Your task to perform on an android device: Search for flights from Tokyo to NYC Image 0: 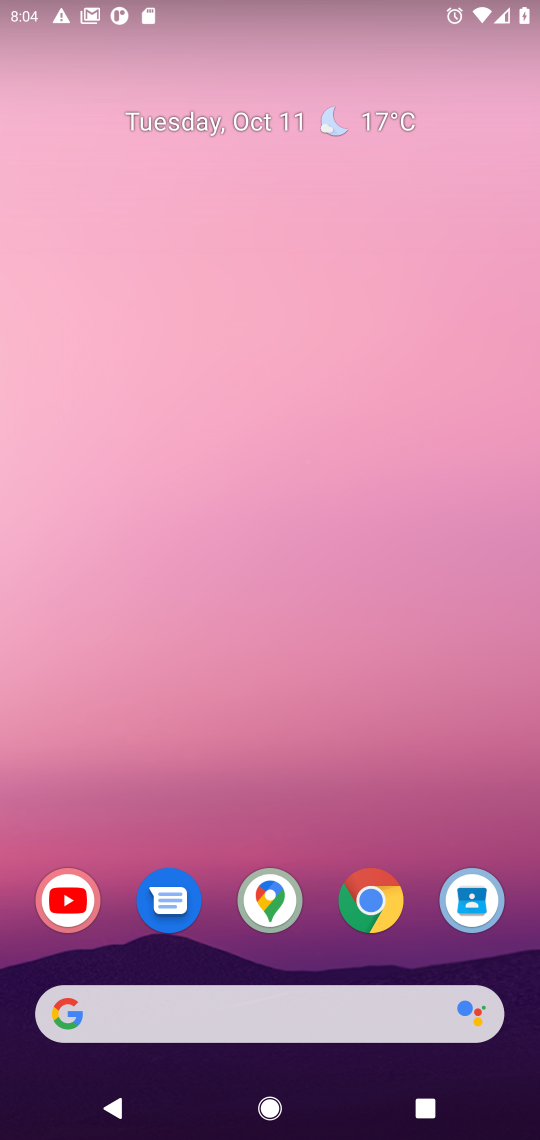
Step 0: click (374, 892)
Your task to perform on an android device: Search for flights from Tokyo to NYC Image 1: 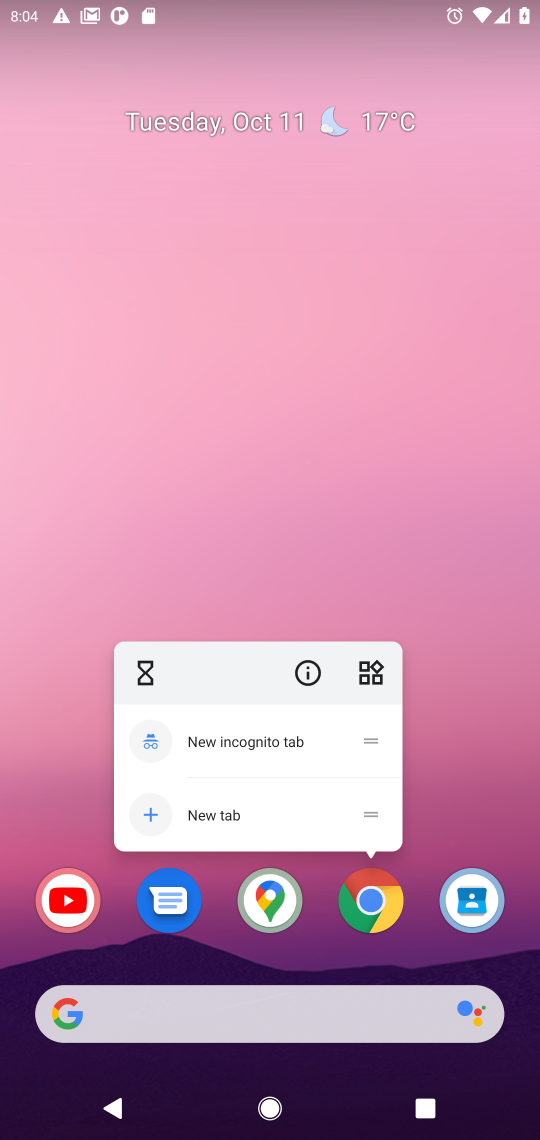
Step 1: click (368, 894)
Your task to perform on an android device: Search for flights from Tokyo to NYC Image 2: 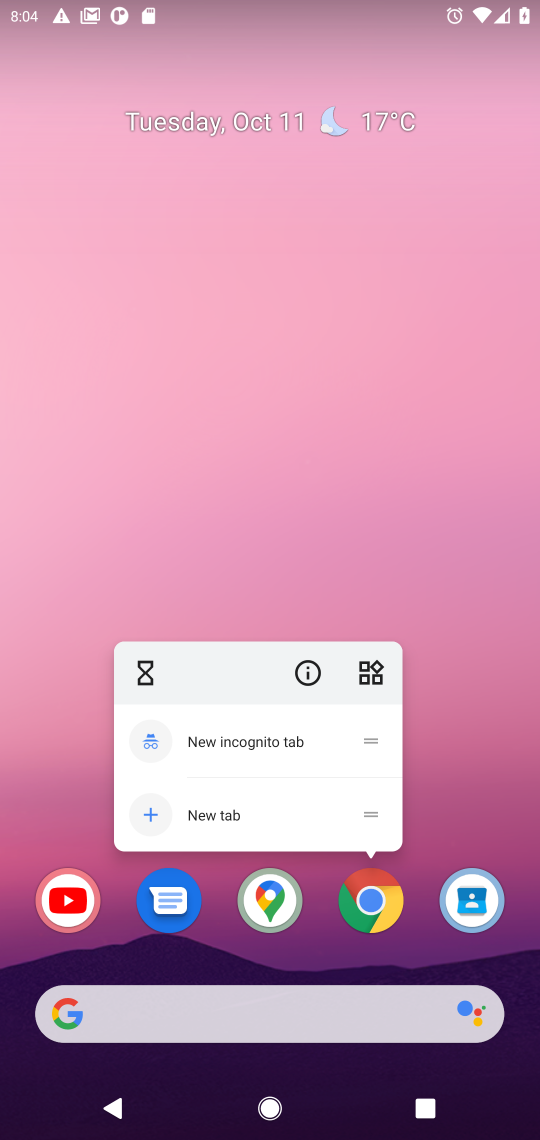
Step 2: click (367, 906)
Your task to perform on an android device: Search for flights from Tokyo to NYC Image 3: 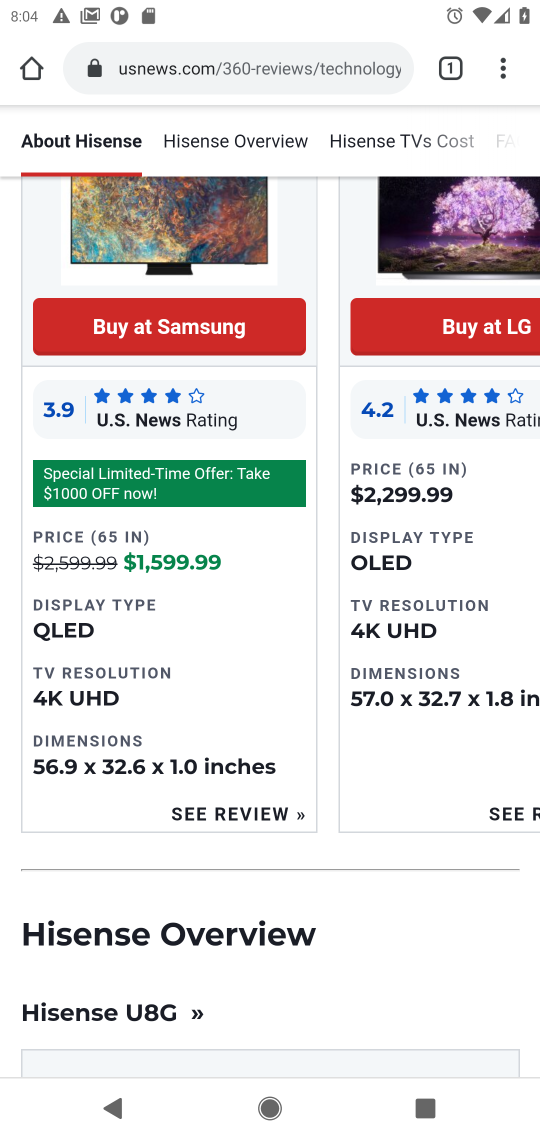
Step 3: click (265, 61)
Your task to perform on an android device: Search for flights from Tokyo to NYC Image 4: 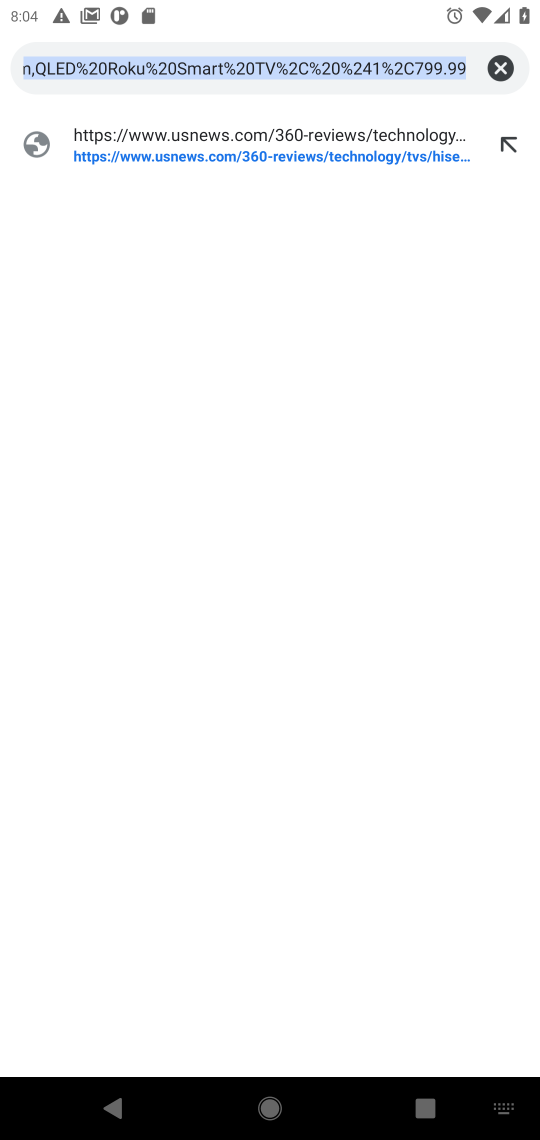
Step 4: click (497, 65)
Your task to perform on an android device: Search for flights from Tokyo to NYC Image 5: 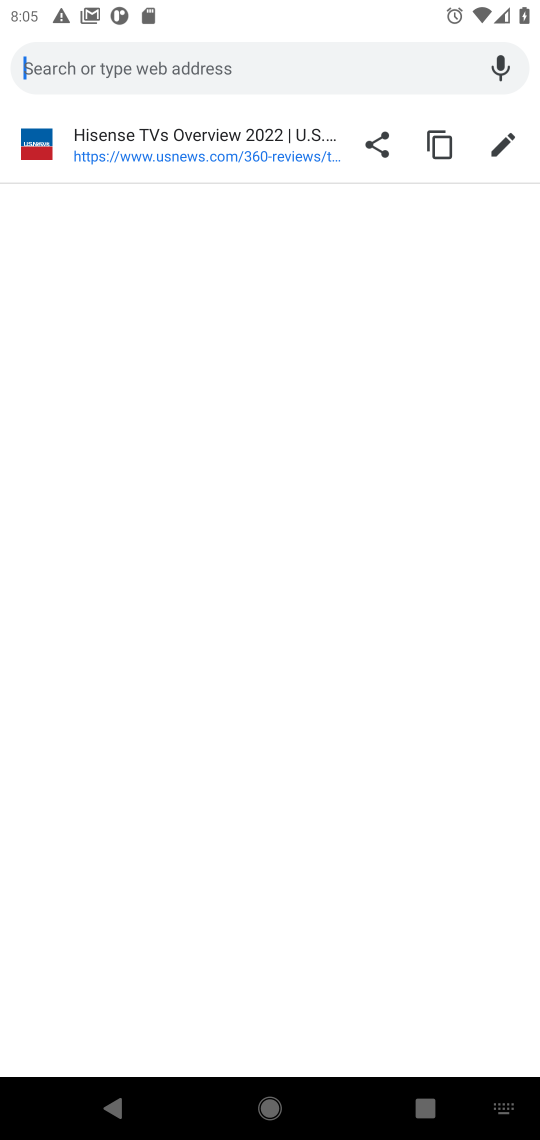
Step 5: type " flights from Tokyo to NYC"
Your task to perform on an android device: Search for flights from Tokyo to NYC Image 6: 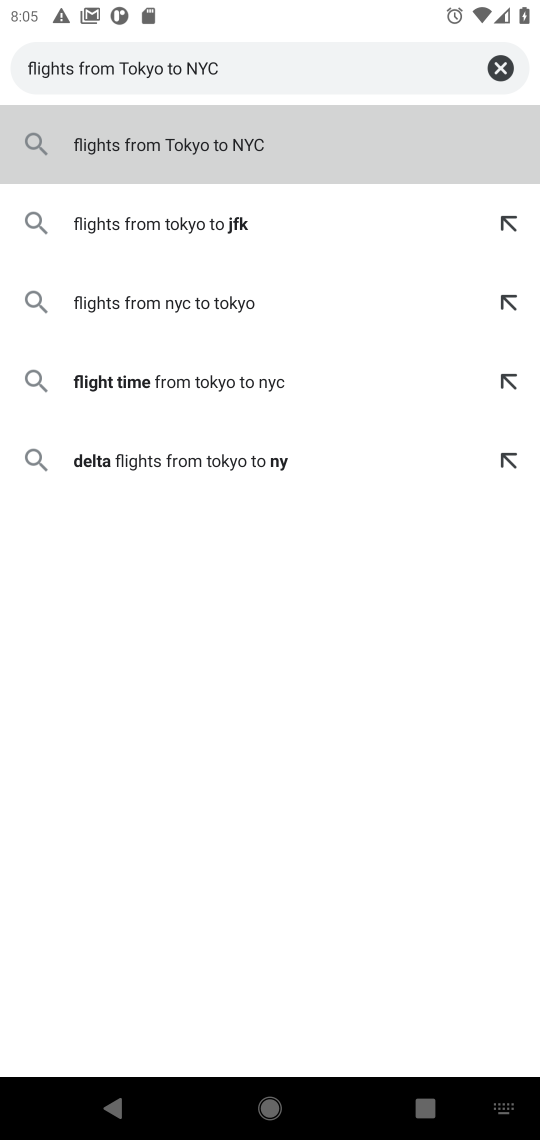
Step 6: press enter
Your task to perform on an android device: Search for flights from Tokyo to NYC Image 7: 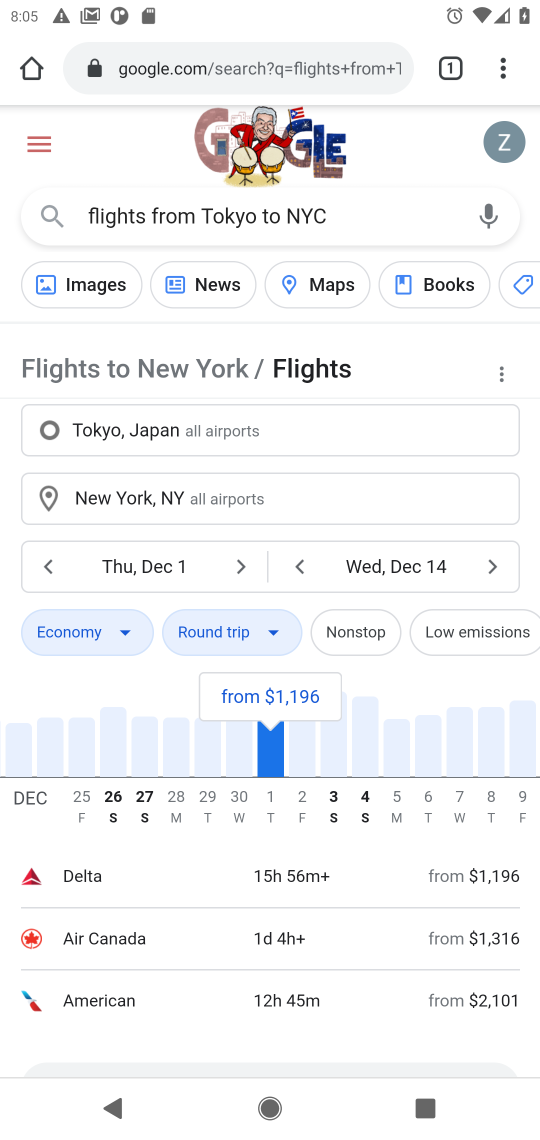
Step 7: drag from (178, 1008) to (392, 290)
Your task to perform on an android device: Search for flights from Tokyo to NYC Image 8: 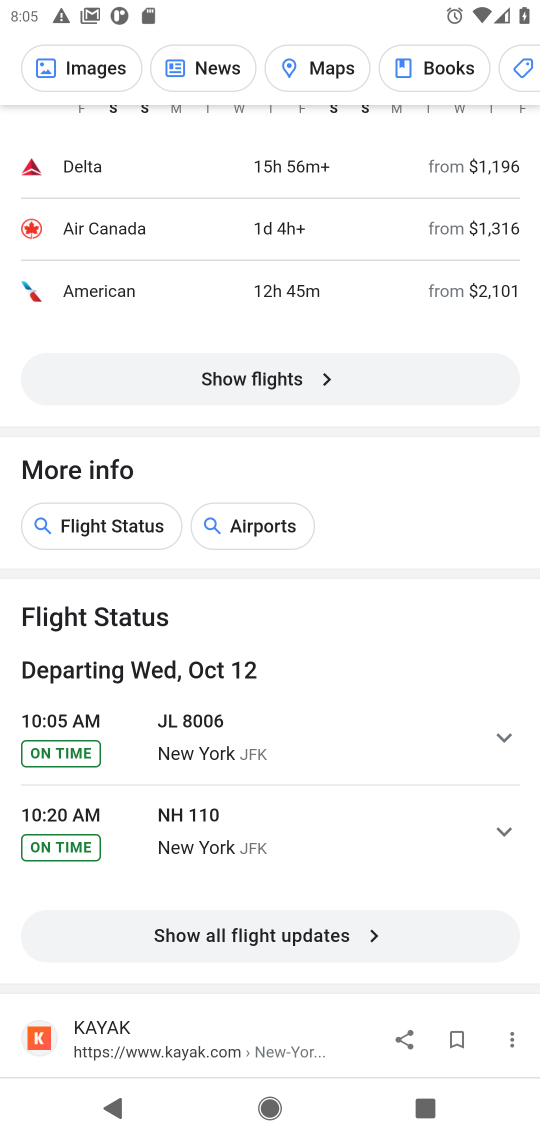
Step 8: click (292, 926)
Your task to perform on an android device: Search for flights from Tokyo to NYC Image 9: 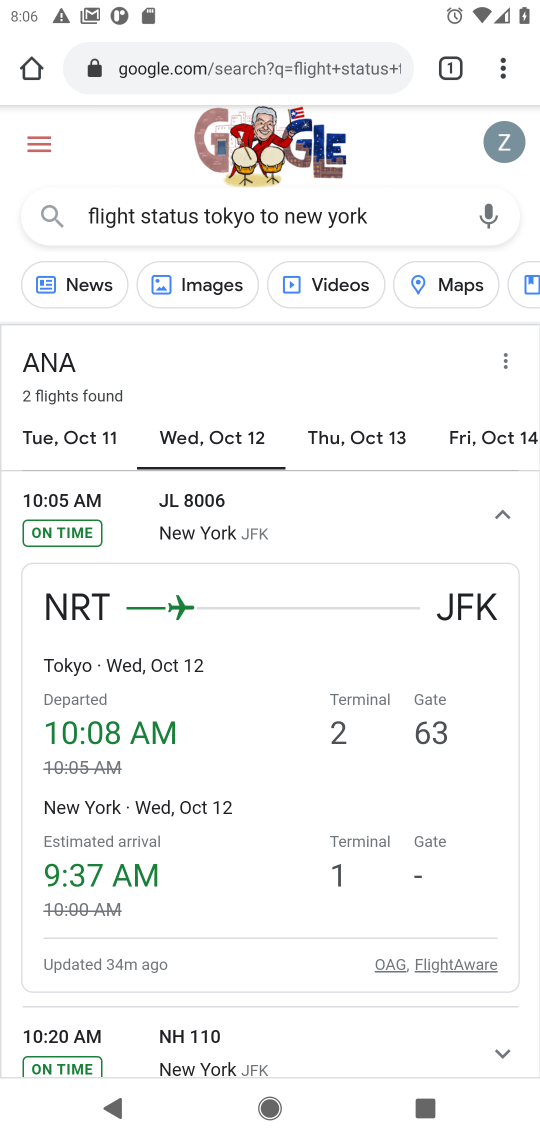
Step 9: drag from (189, 873) to (366, 252)
Your task to perform on an android device: Search for flights from Tokyo to NYC Image 10: 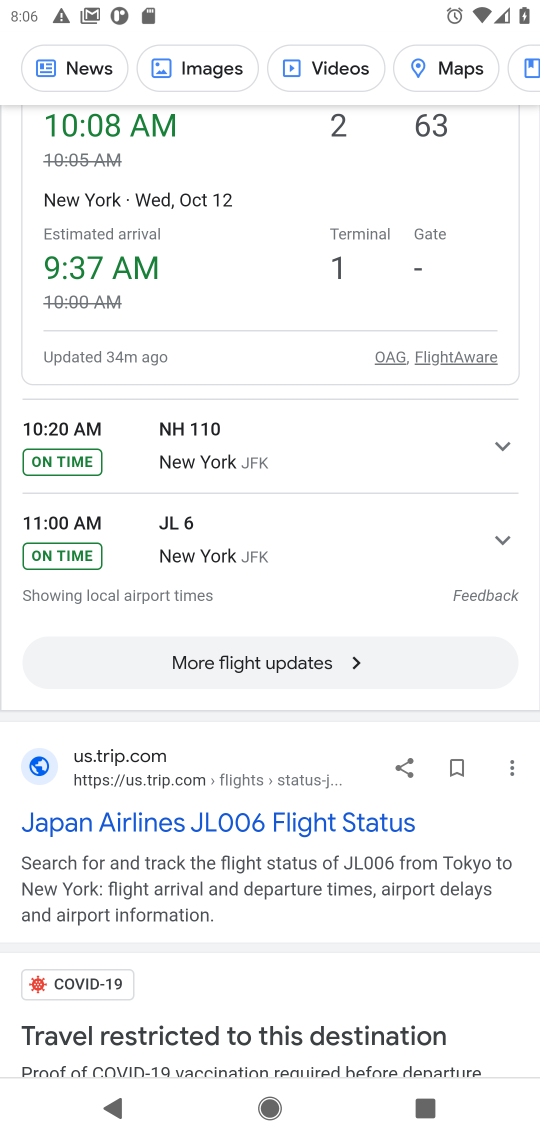
Step 10: click (285, 657)
Your task to perform on an android device: Search for flights from Tokyo to NYC Image 11: 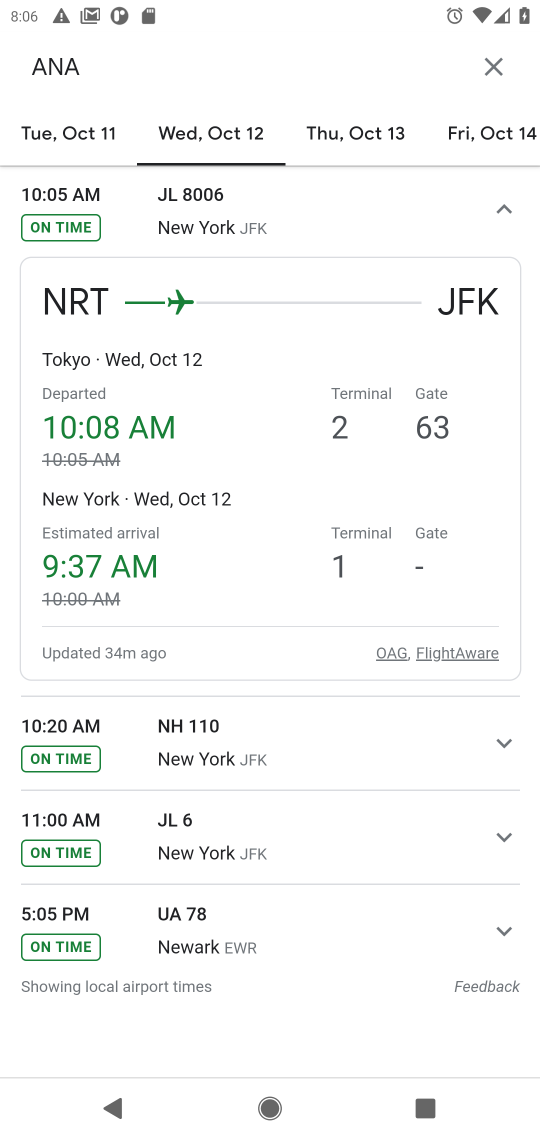
Step 11: task complete